Your task to perform on an android device: Turn off the flashlight Image 0: 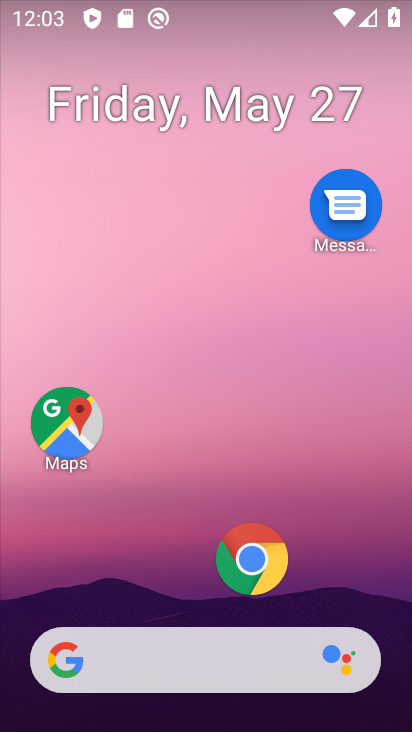
Step 0: drag from (188, 629) to (207, 692)
Your task to perform on an android device: Turn off the flashlight Image 1: 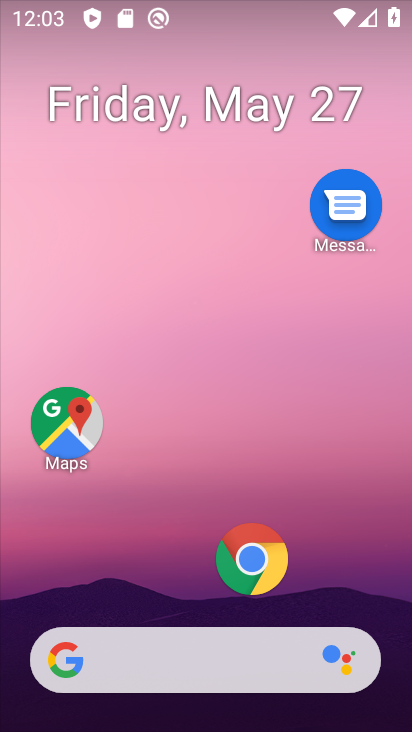
Step 1: task complete